Your task to perform on an android device: open app "Venmo" Image 0: 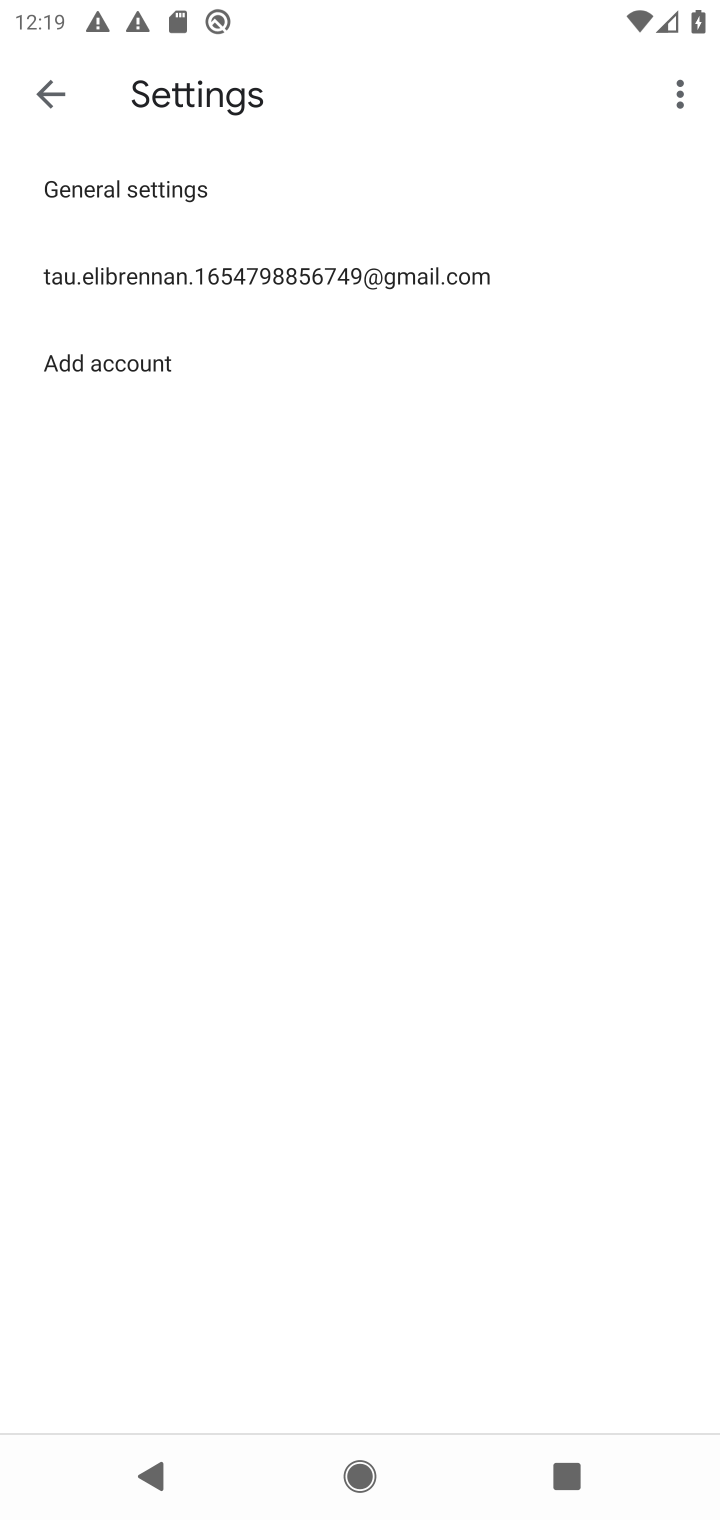
Step 0: press home button
Your task to perform on an android device: open app "Venmo" Image 1: 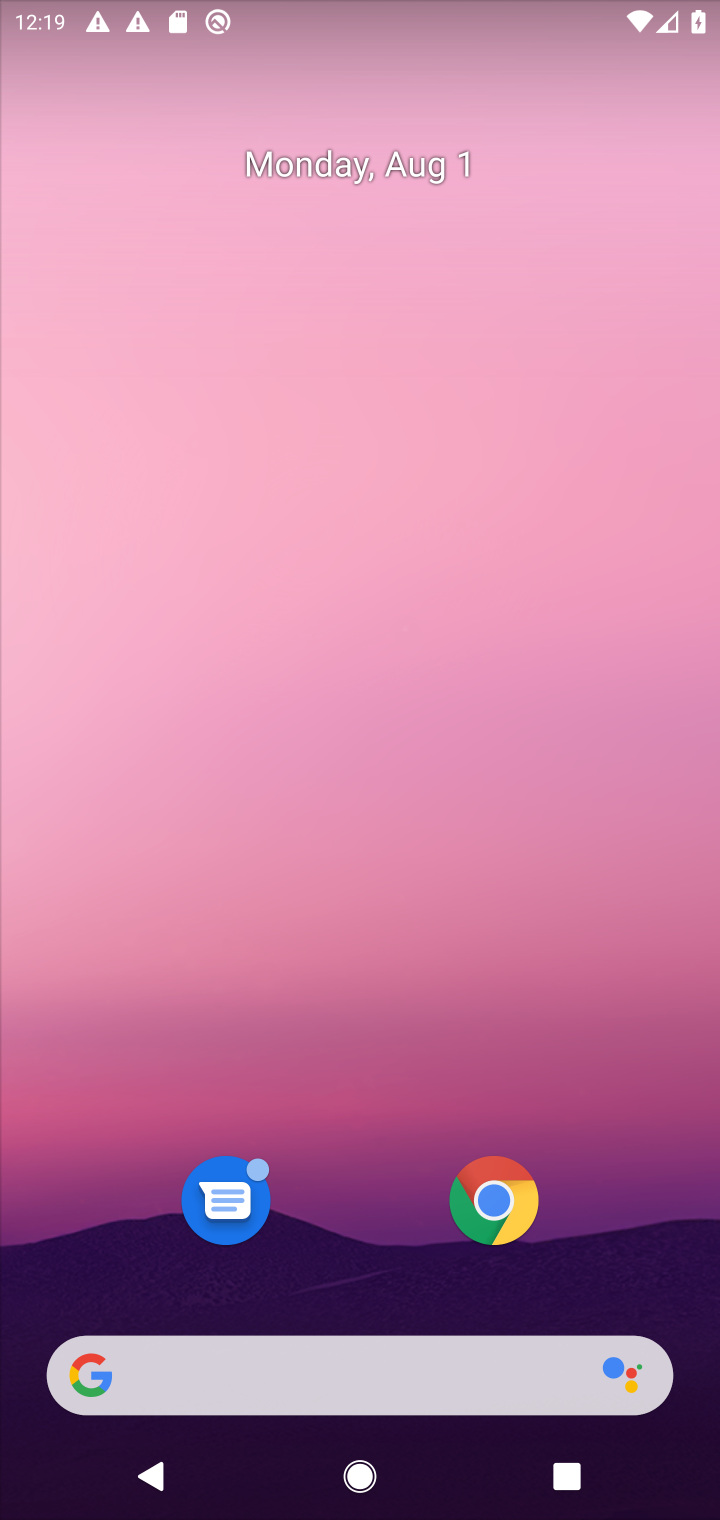
Step 1: click (346, 21)
Your task to perform on an android device: open app "Venmo" Image 2: 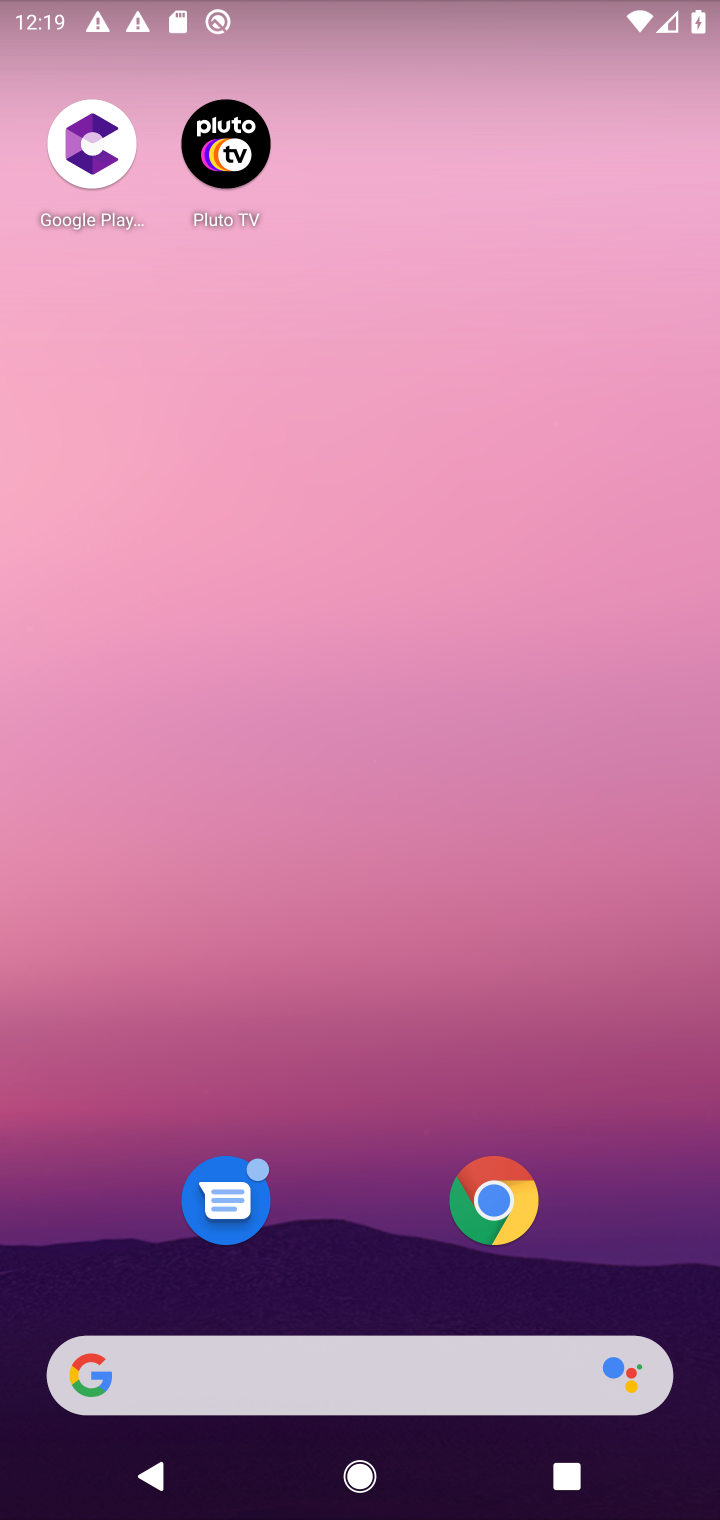
Step 2: drag from (427, 1281) to (401, 20)
Your task to perform on an android device: open app "Venmo" Image 3: 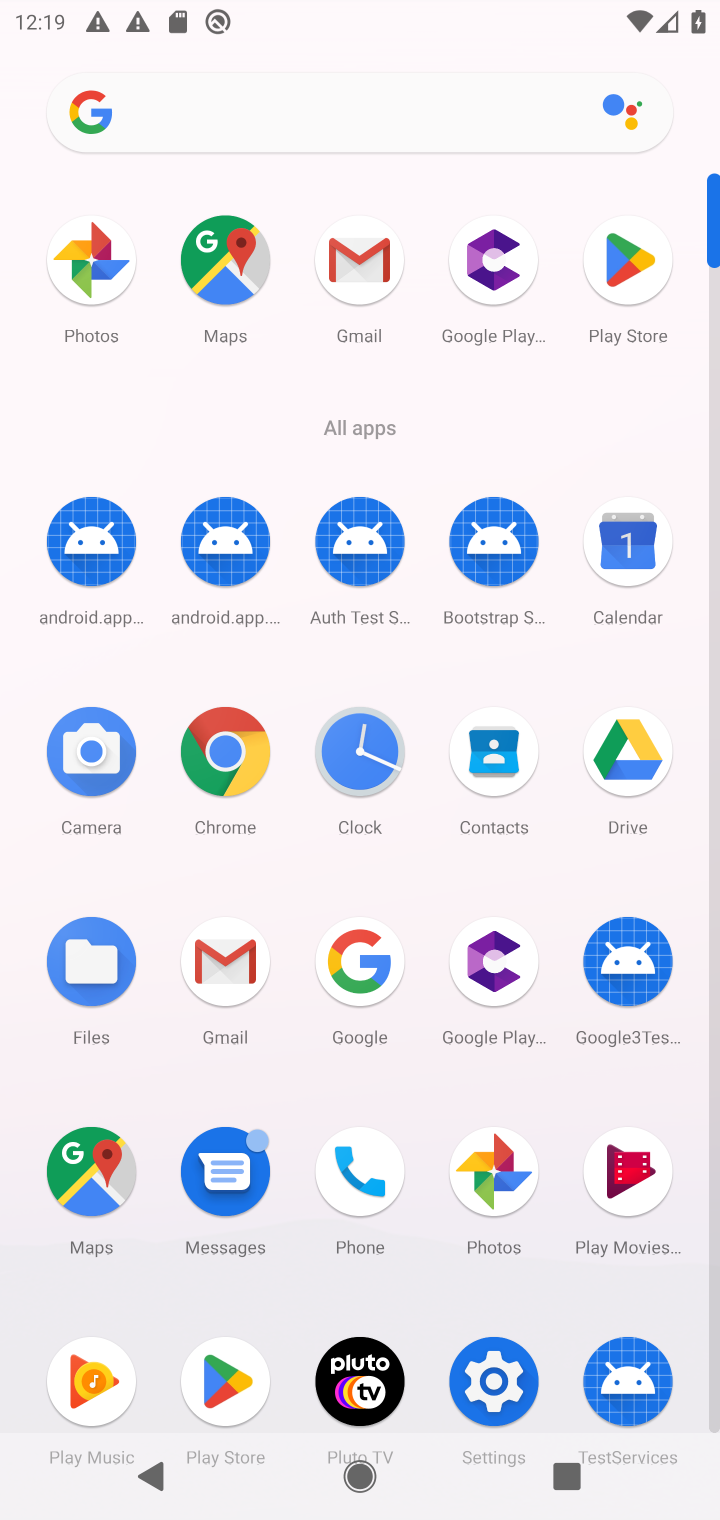
Step 3: click (618, 242)
Your task to perform on an android device: open app "Venmo" Image 4: 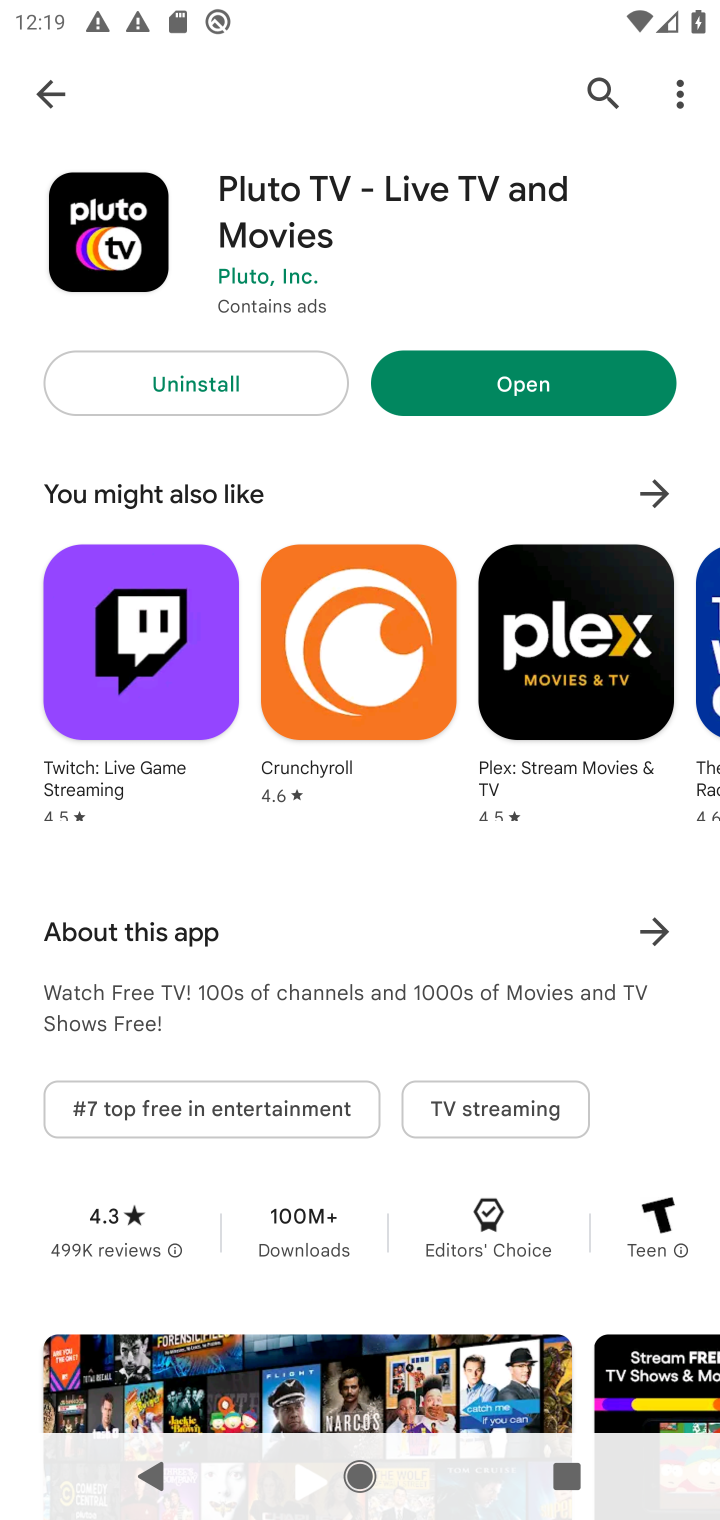
Step 4: click (600, 101)
Your task to perform on an android device: open app "Venmo" Image 5: 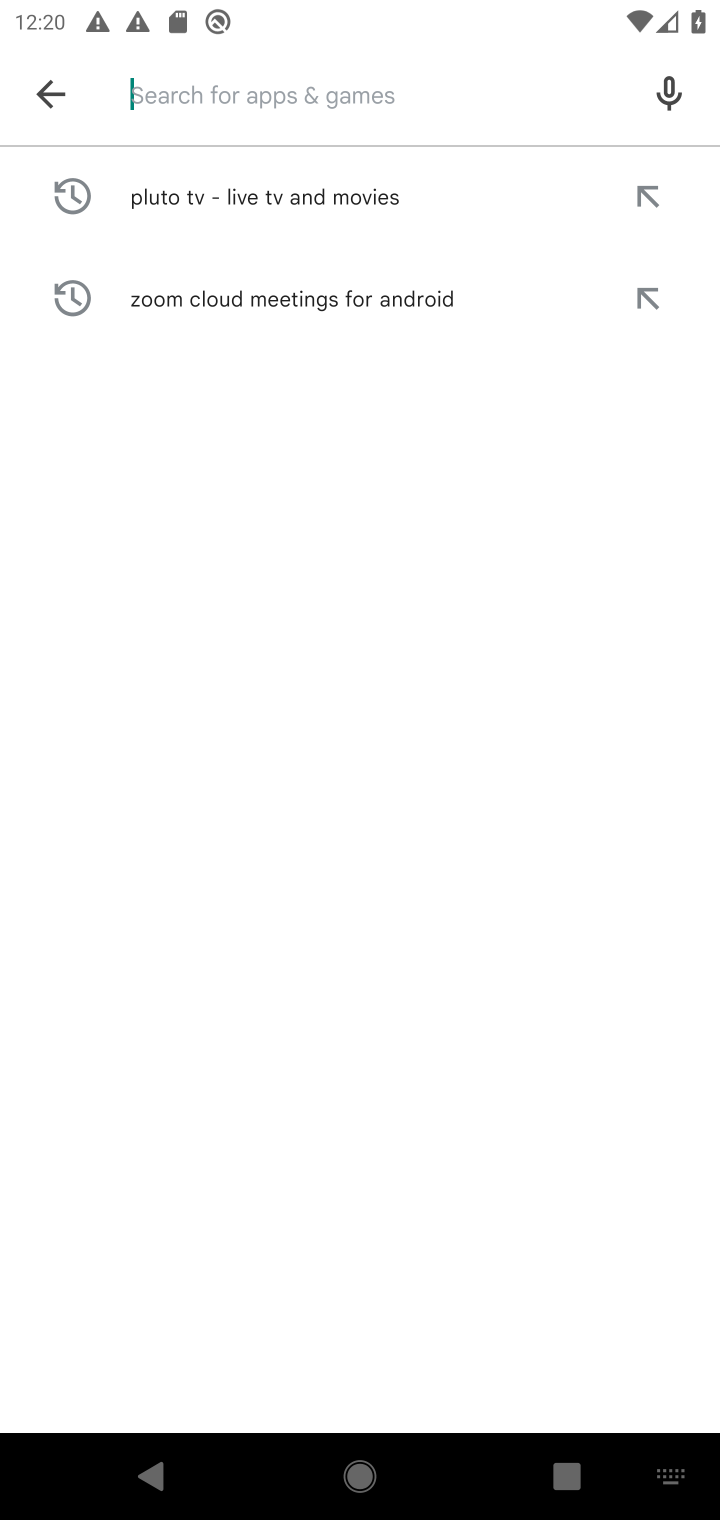
Step 5: type "venmo"
Your task to perform on an android device: open app "Venmo" Image 6: 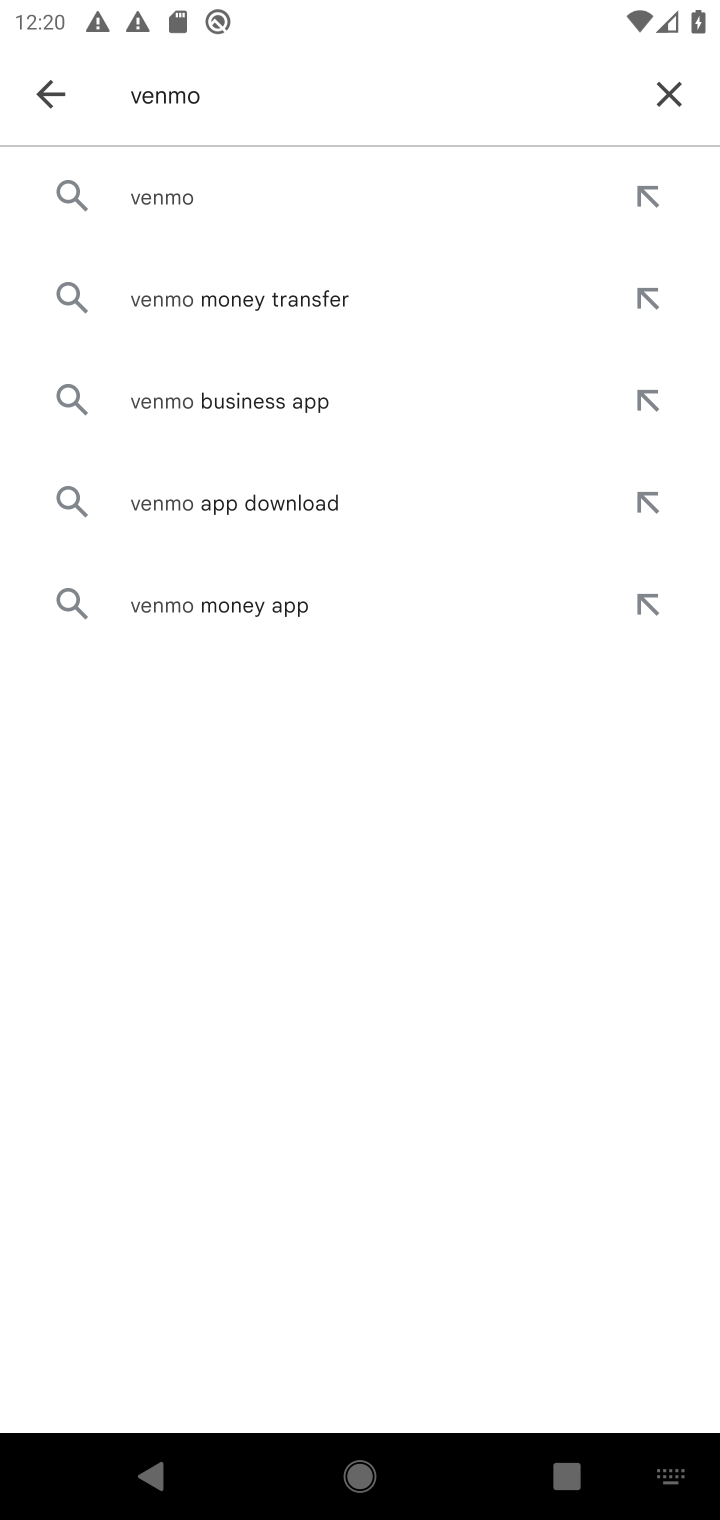
Step 6: click (143, 168)
Your task to perform on an android device: open app "Venmo" Image 7: 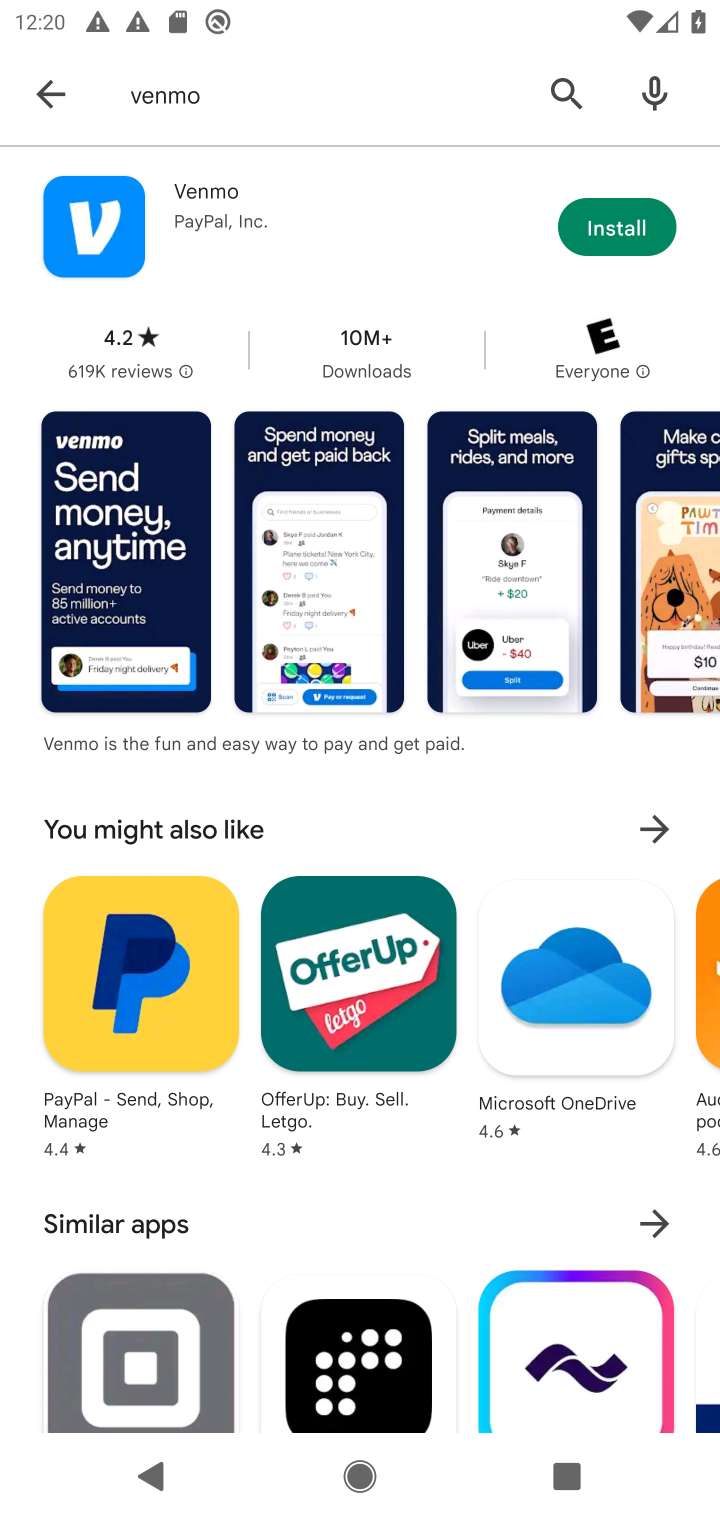
Step 7: click (211, 219)
Your task to perform on an android device: open app "Venmo" Image 8: 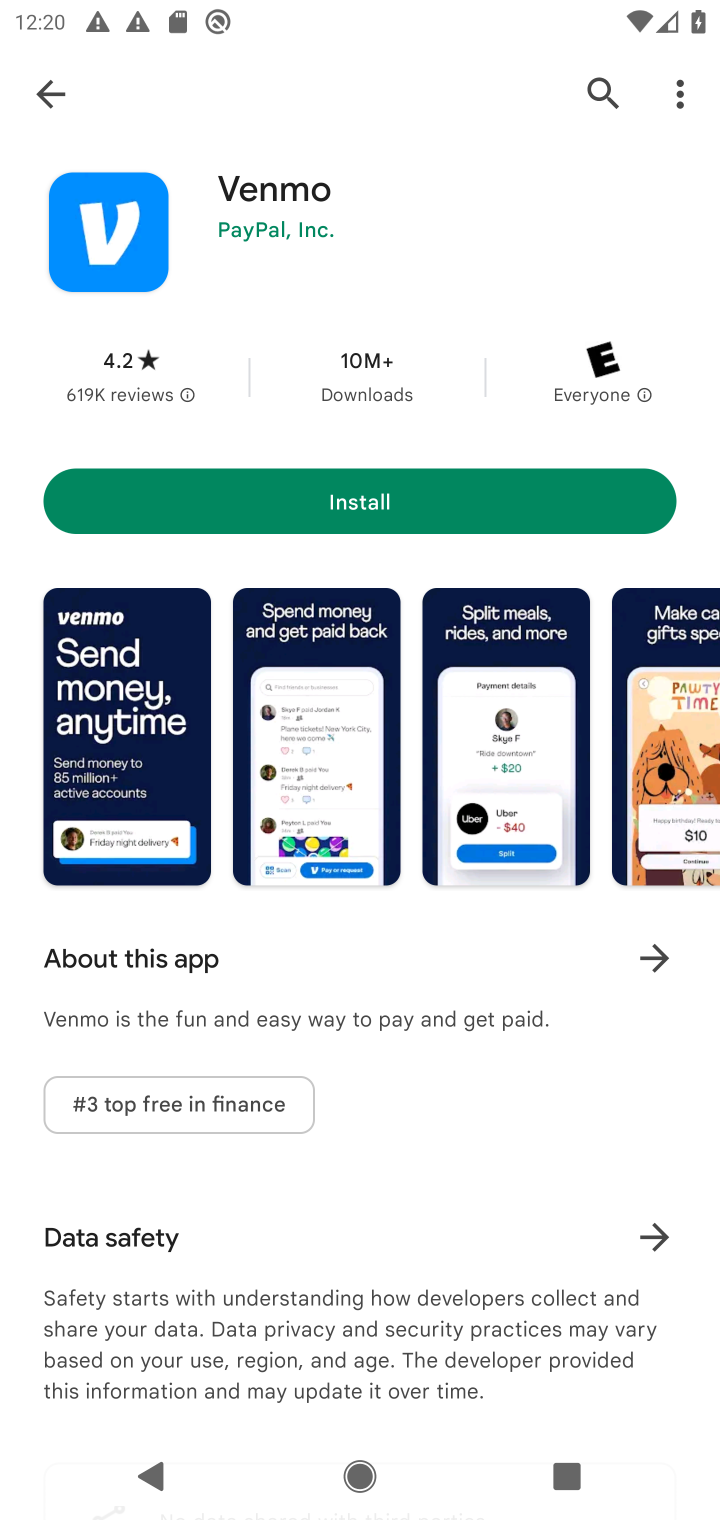
Step 8: task complete